Your task to perform on an android device: Open Chrome and go to the settings page Image 0: 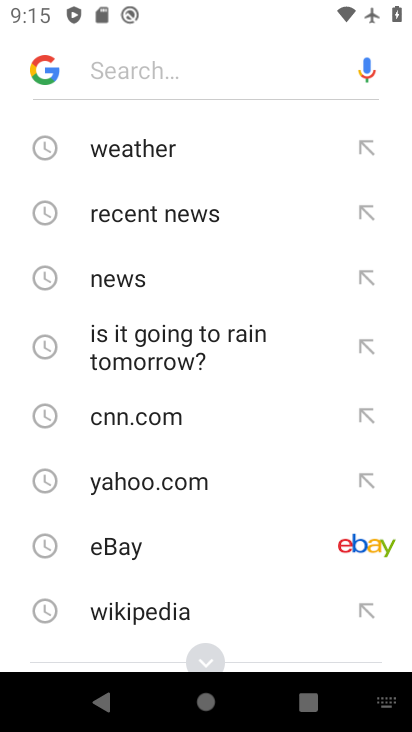
Step 0: press home button
Your task to perform on an android device: Open Chrome and go to the settings page Image 1: 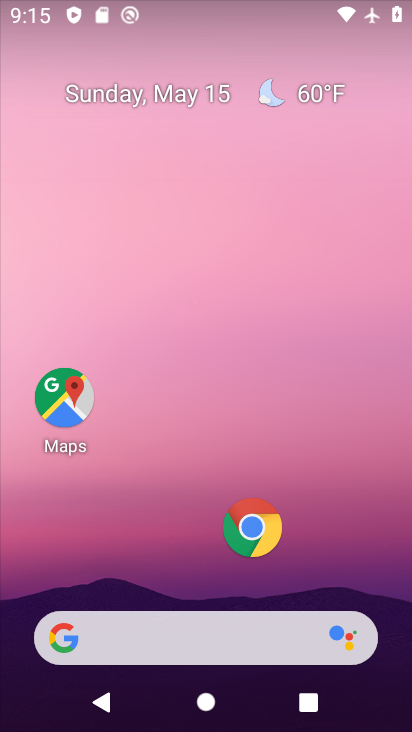
Step 1: click (258, 534)
Your task to perform on an android device: Open Chrome and go to the settings page Image 2: 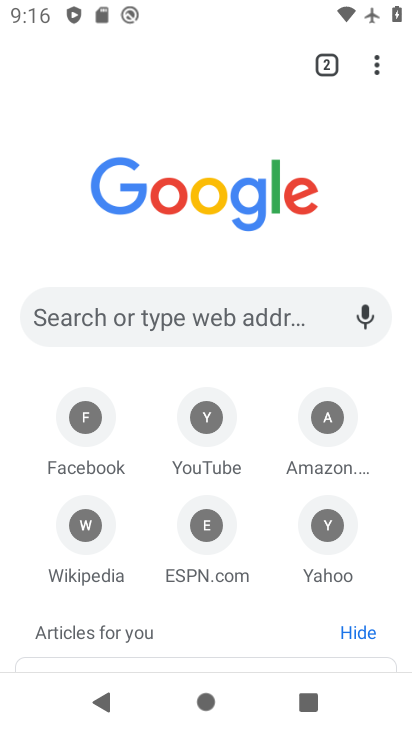
Step 2: click (375, 61)
Your task to perform on an android device: Open Chrome and go to the settings page Image 3: 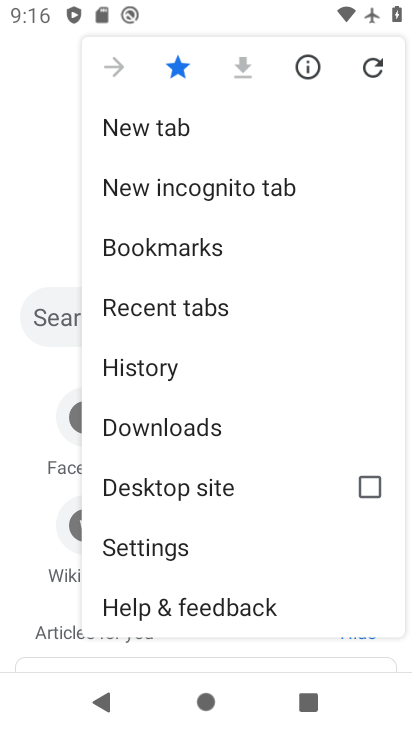
Step 3: click (199, 553)
Your task to perform on an android device: Open Chrome and go to the settings page Image 4: 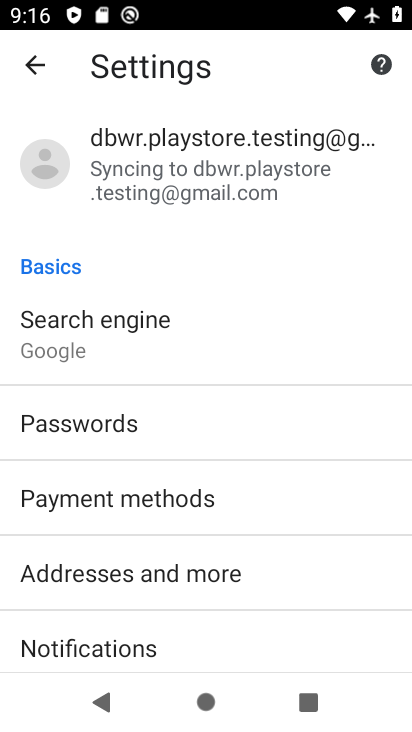
Step 4: task complete